Your task to perform on an android device: read, delete, or share a saved page in the chrome app Image 0: 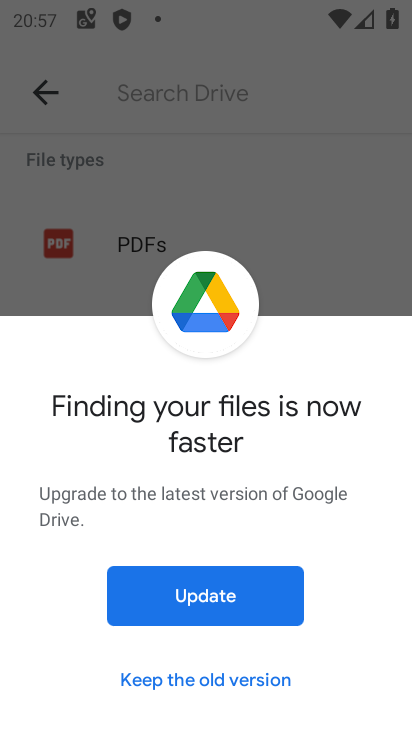
Step 0: press home button
Your task to perform on an android device: read, delete, or share a saved page in the chrome app Image 1: 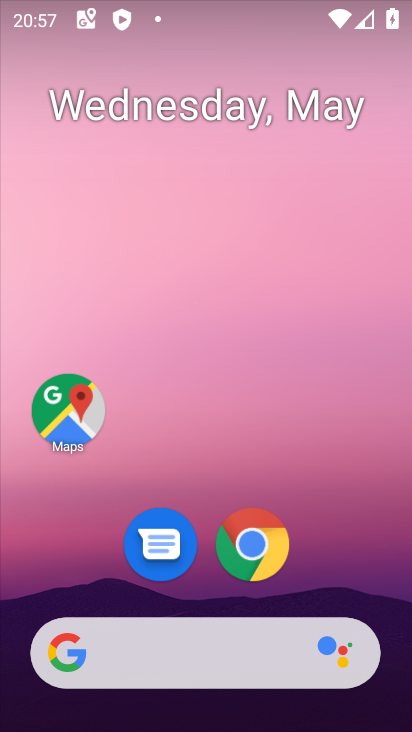
Step 1: click (247, 562)
Your task to perform on an android device: read, delete, or share a saved page in the chrome app Image 2: 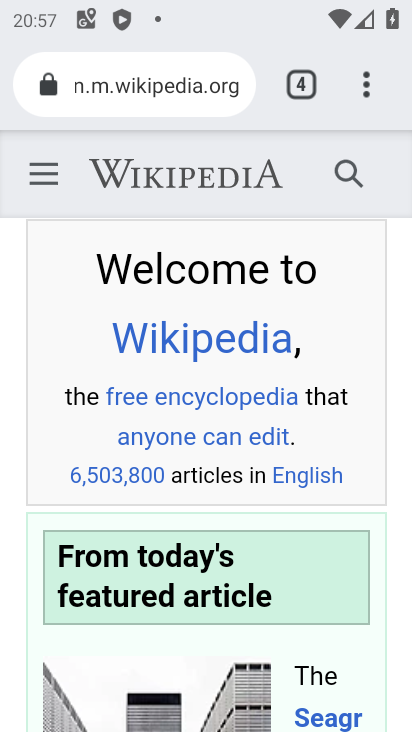
Step 2: click (378, 84)
Your task to perform on an android device: read, delete, or share a saved page in the chrome app Image 3: 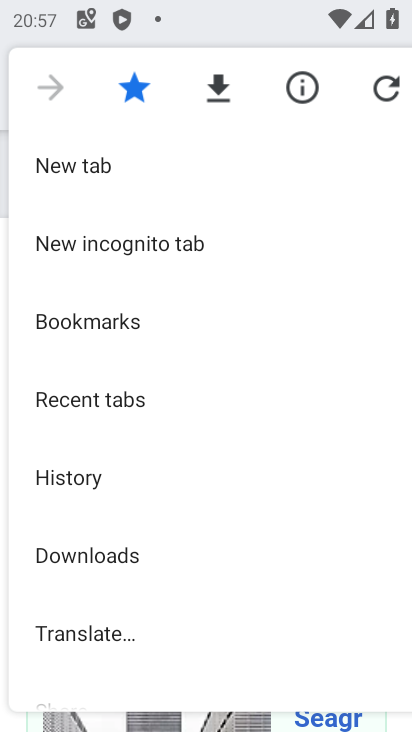
Step 3: click (140, 547)
Your task to perform on an android device: read, delete, or share a saved page in the chrome app Image 4: 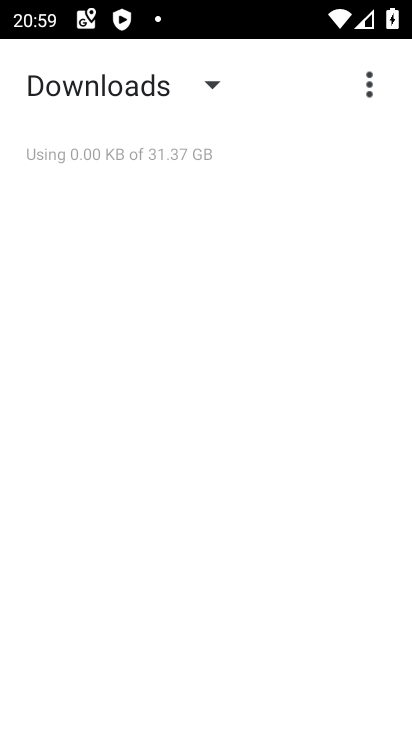
Step 4: task complete